Your task to perform on an android device: add a contact in the contacts app Image 0: 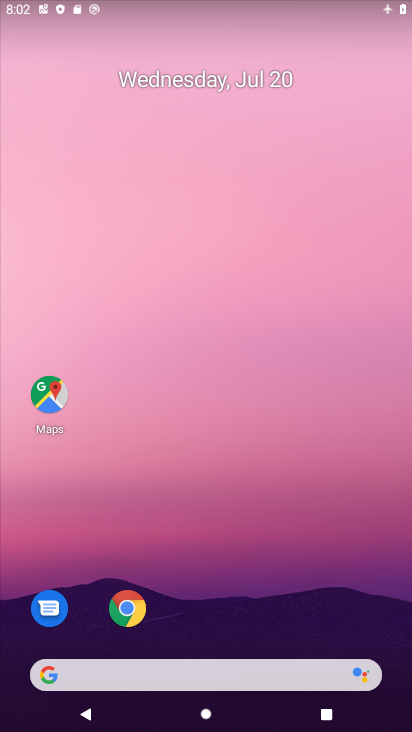
Step 0: drag from (240, 597) to (161, 14)
Your task to perform on an android device: add a contact in the contacts app Image 1: 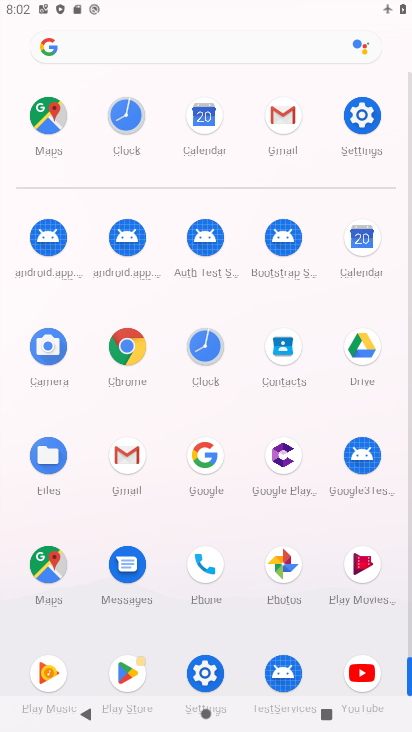
Step 1: click (287, 355)
Your task to perform on an android device: add a contact in the contacts app Image 2: 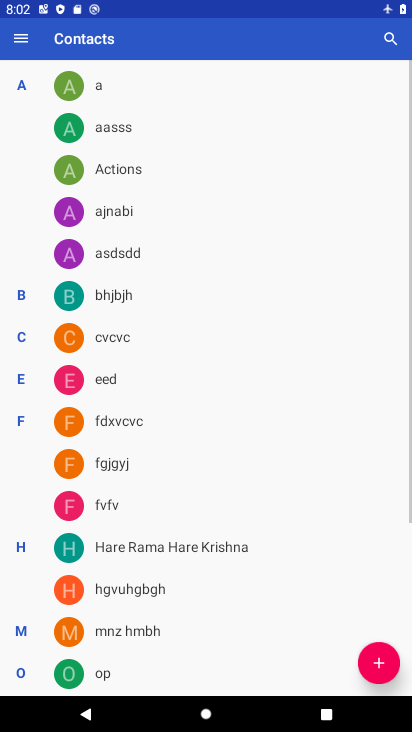
Step 2: click (381, 658)
Your task to perform on an android device: add a contact in the contacts app Image 3: 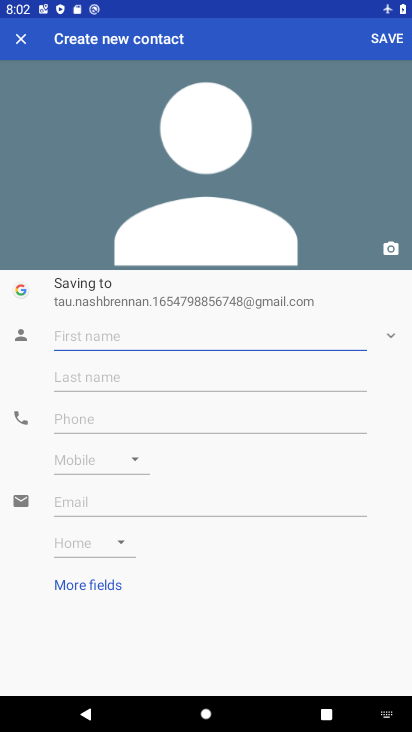
Step 3: type "frsyh"
Your task to perform on an android device: add a contact in the contacts app Image 4: 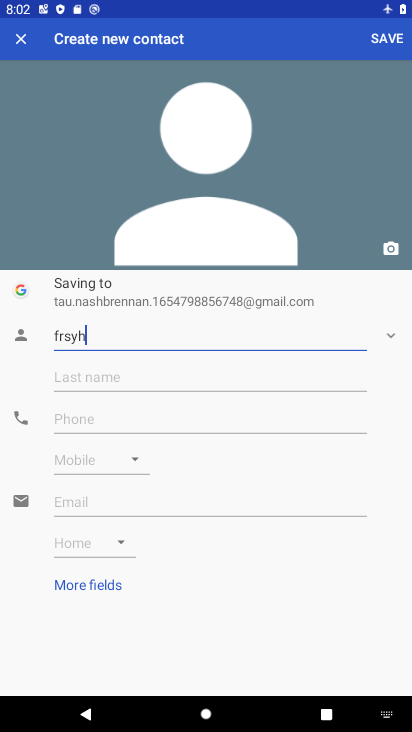
Step 4: click (376, 40)
Your task to perform on an android device: add a contact in the contacts app Image 5: 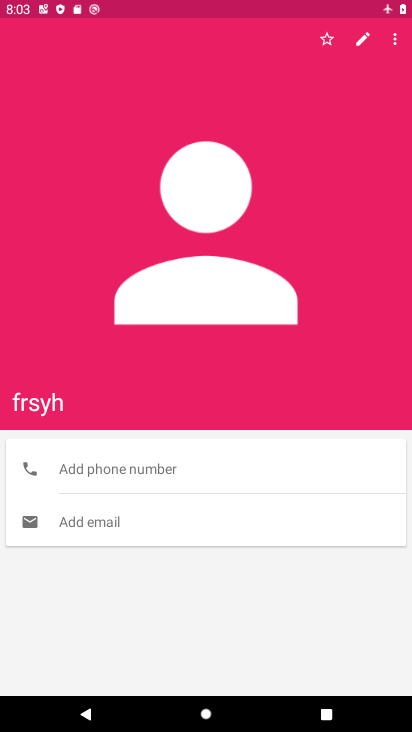
Step 5: task complete